Your task to perform on an android device: turn on wifi Image 0: 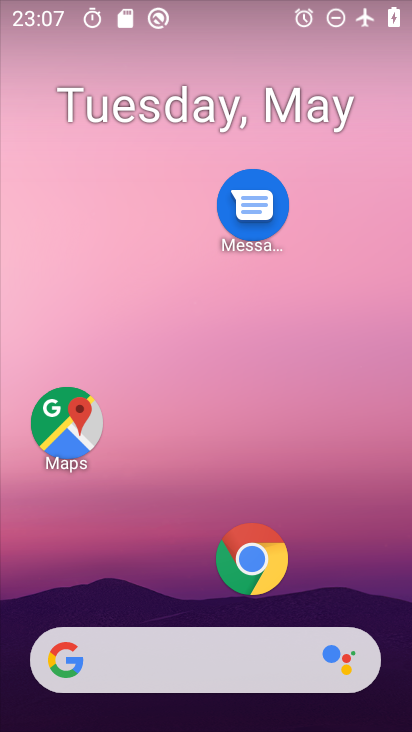
Step 0: drag from (172, 593) to (219, 222)
Your task to perform on an android device: turn on wifi Image 1: 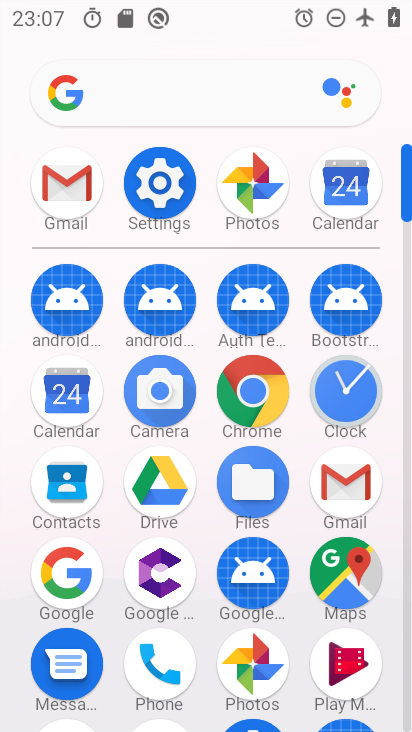
Step 1: click (167, 191)
Your task to perform on an android device: turn on wifi Image 2: 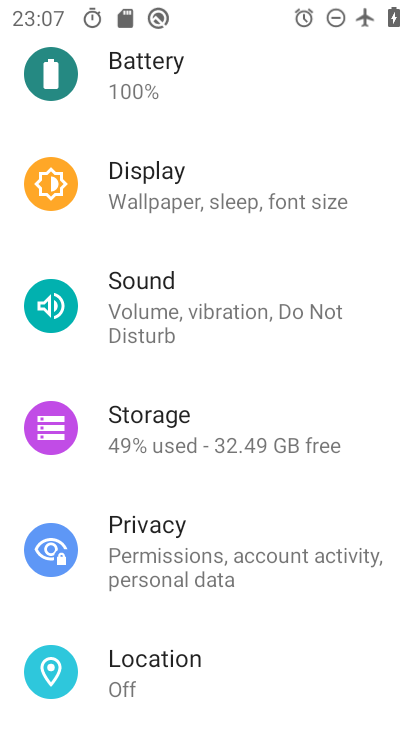
Step 2: drag from (223, 143) to (271, 643)
Your task to perform on an android device: turn on wifi Image 3: 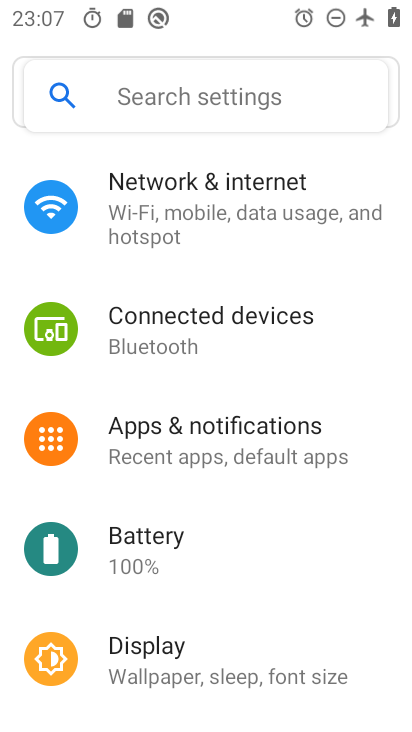
Step 3: click (211, 223)
Your task to perform on an android device: turn on wifi Image 4: 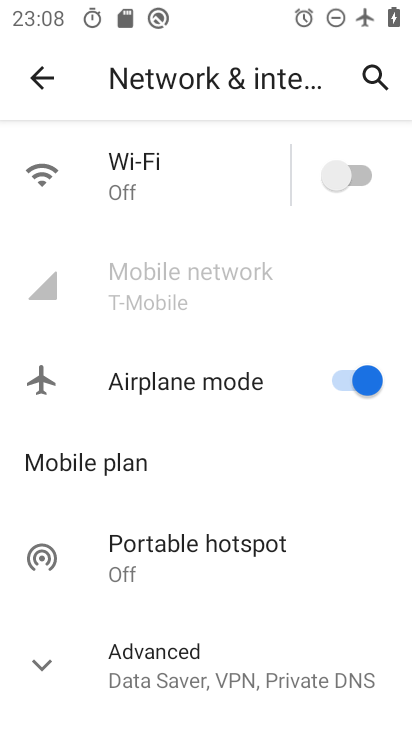
Step 4: click (353, 166)
Your task to perform on an android device: turn on wifi Image 5: 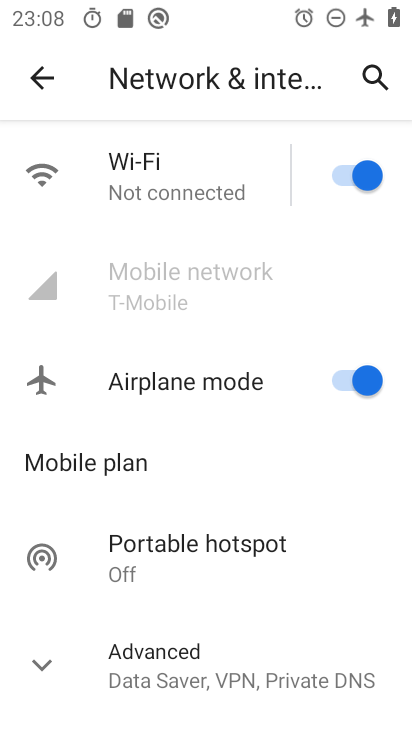
Step 5: task complete